Your task to perform on an android device: all mails in gmail Image 0: 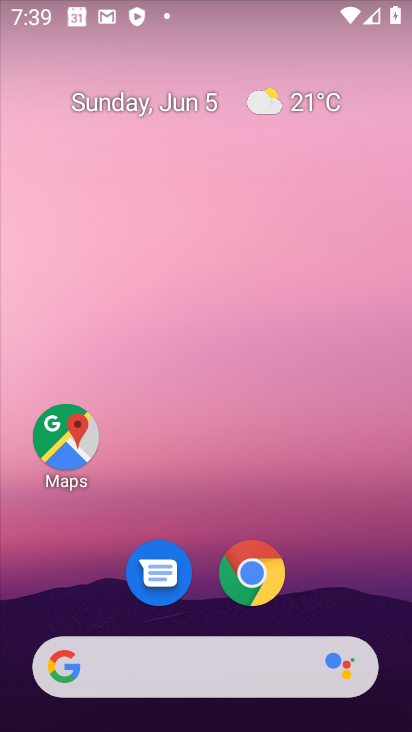
Step 0: drag from (295, 612) to (274, 307)
Your task to perform on an android device: all mails in gmail Image 1: 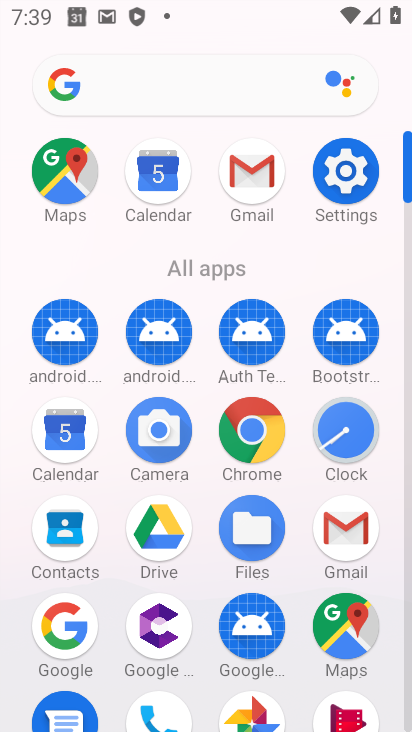
Step 1: click (283, 172)
Your task to perform on an android device: all mails in gmail Image 2: 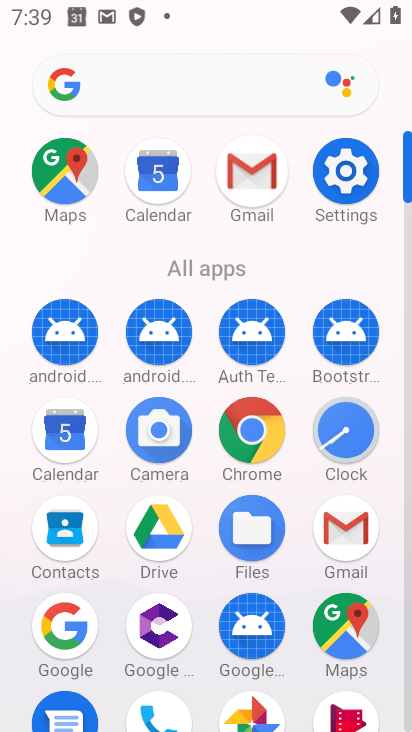
Step 2: click (265, 173)
Your task to perform on an android device: all mails in gmail Image 3: 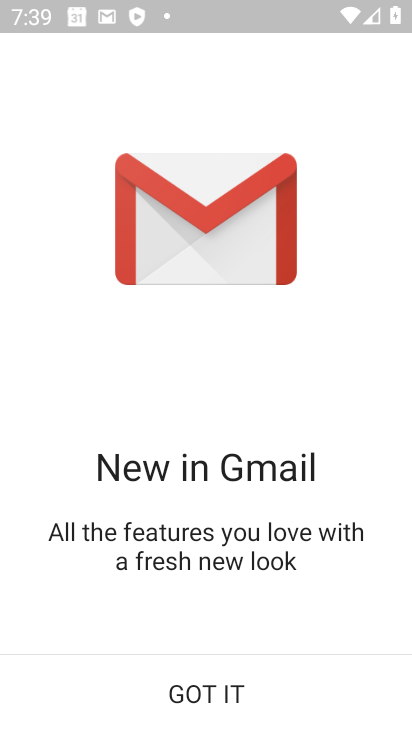
Step 3: click (259, 682)
Your task to perform on an android device: all mails in gmail Image 4: 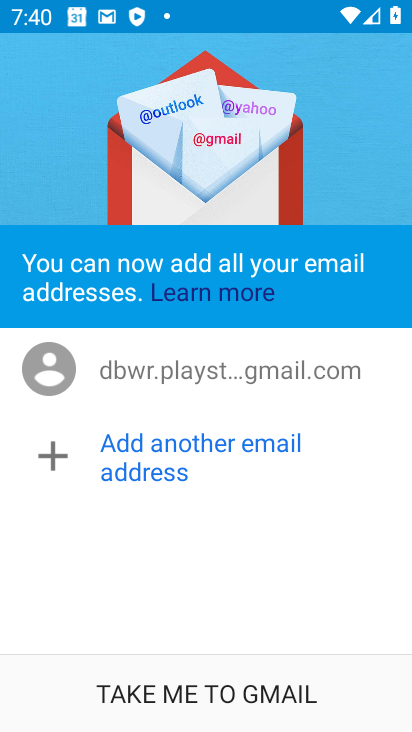
Step 4: click (244, 699)
Your task to perform on an android device: all mails in gmail Image 5: 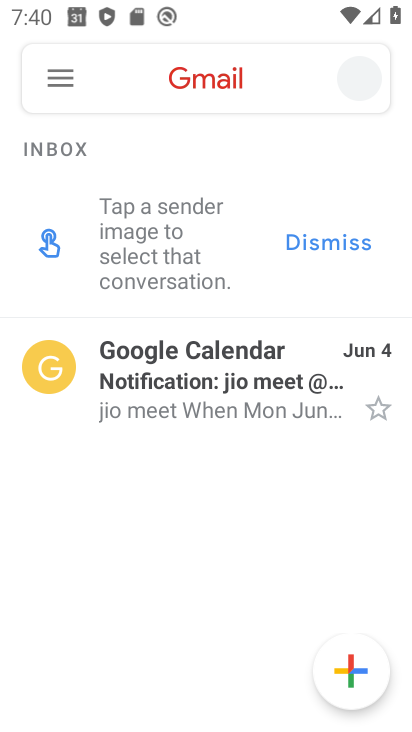
Step 5: click (43, 65)
Your task to perform on an android device: all mails in gmail Image 6: 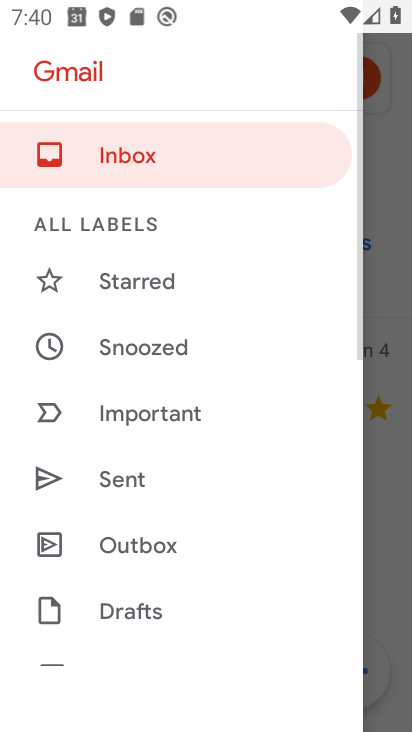
Step 6: drag from (150, 561) to (217, 246)
Your task to perform on an android device: all mails in gmail Image 7: 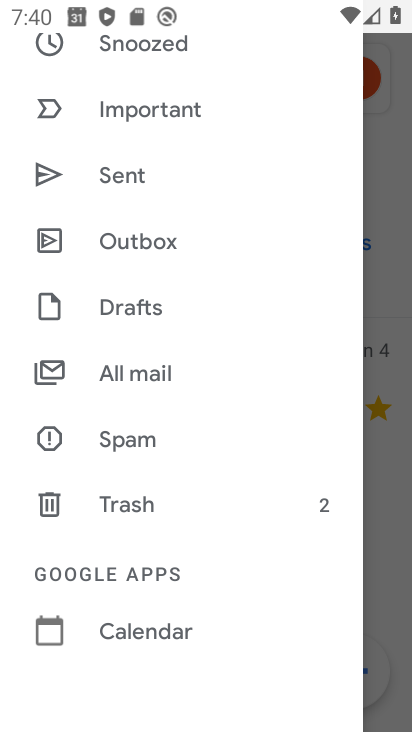
Step 7: click (149, 377)
Your task to perform on an android device: all mails in gmail Image 8: 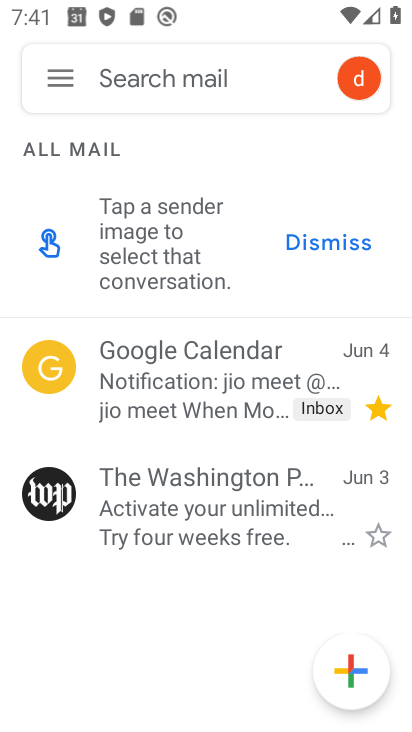
Step 8: task complete